Your task to perform on an android device: Open sound settings Image 0: 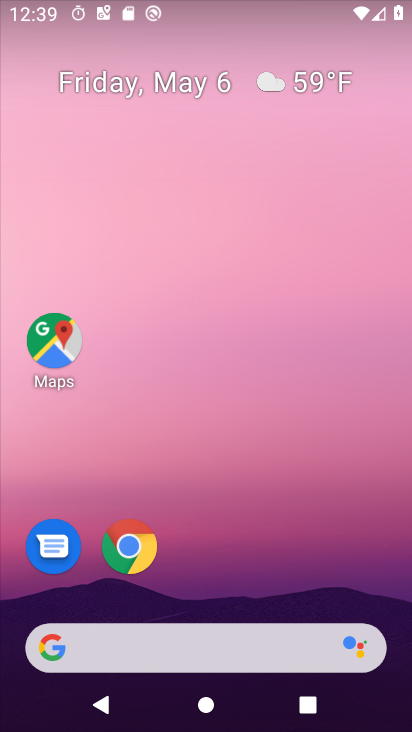
Step 0: drag from (240, 561) to (259, 152)
Your task to perform on an android device: Open sound settings Image 1: 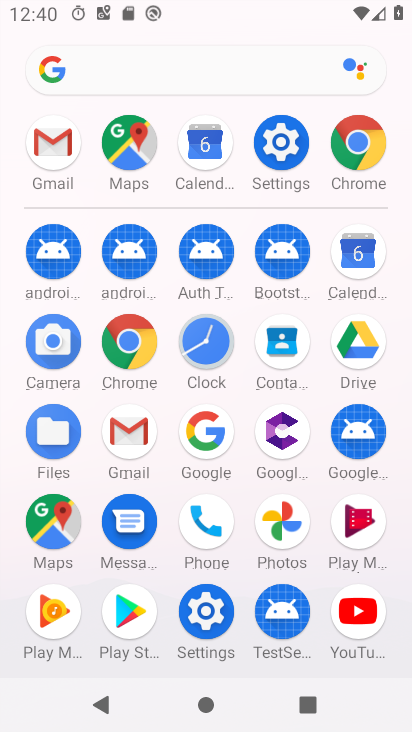
Step 1: click (275, 149)
Your task to perform on an android device: Open sound settings Image 2: 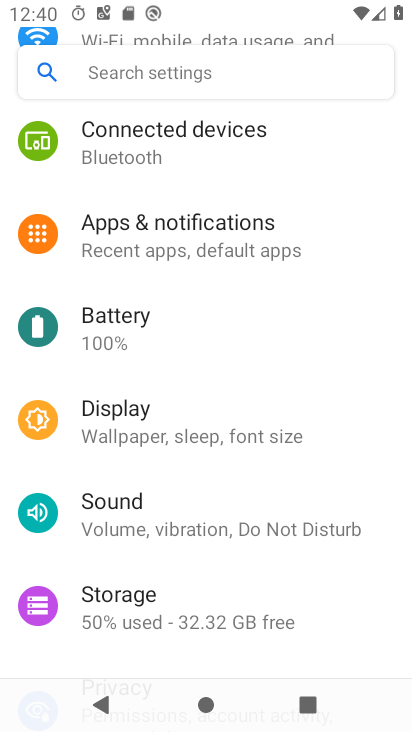
Step 2: click (234, 532)
Your task to perform on an android device: Open sound settings Image 3: 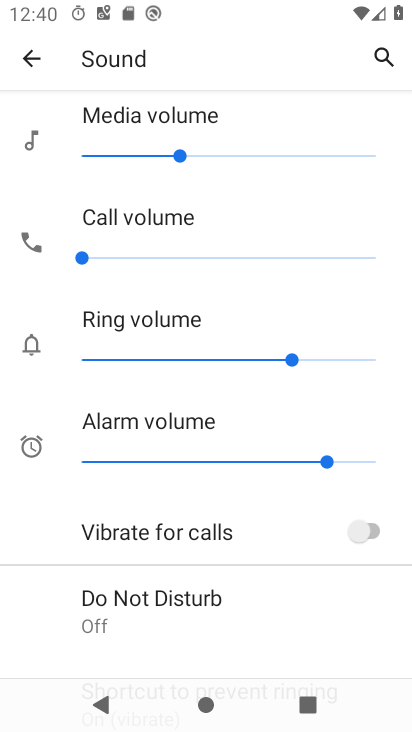
Step 3: task complete